Your task to perform on an android device: change notification settings in the gmail app Image 0: 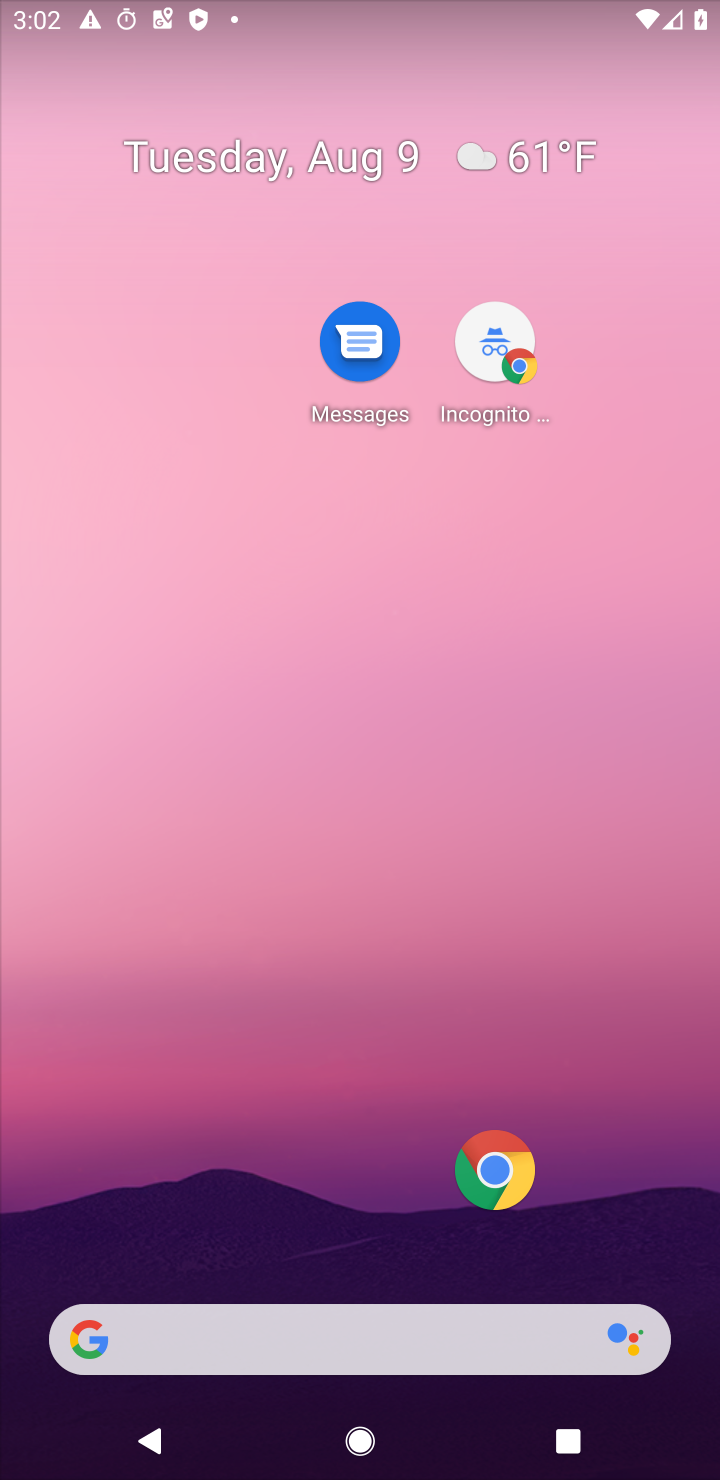
Step 0: drag from (280, 1166) to (452, 0)
Your task to perform on an android device: change notification settings in the gmail app Image 1: 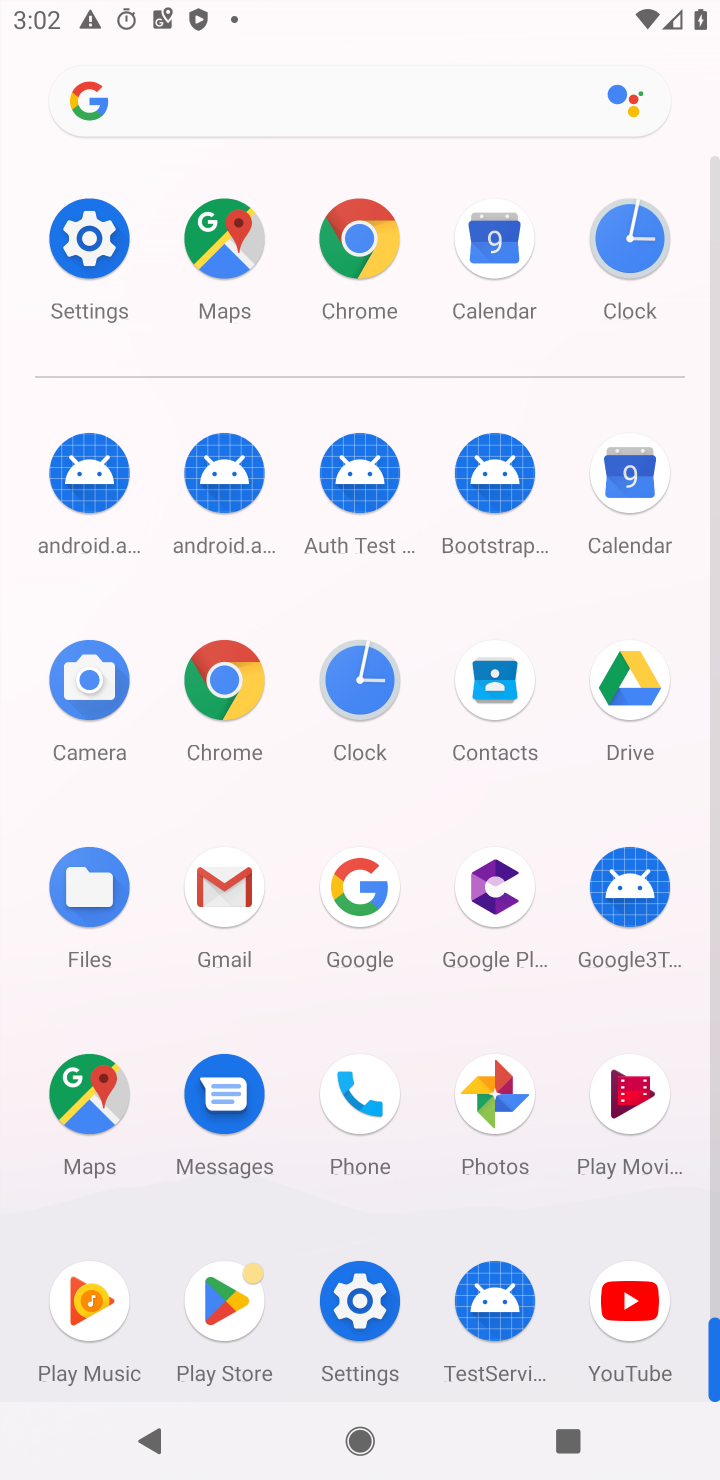
Step 1: click (230, 905)
Your task to perform on an android device: change notification settings in the gmail app Image 2: 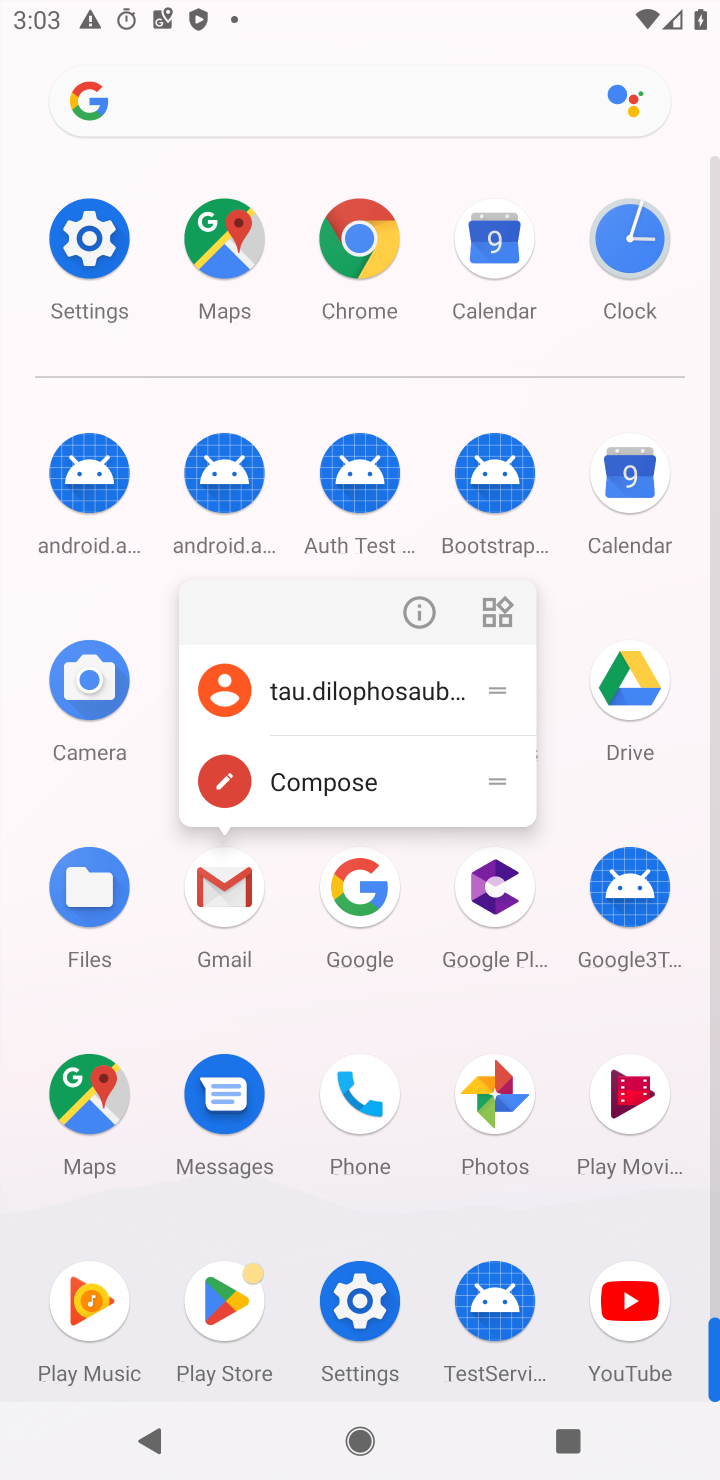
Step 2: click (202, 912)
Your task to perform on an android device: change notification settings in the gmail app Image 3: 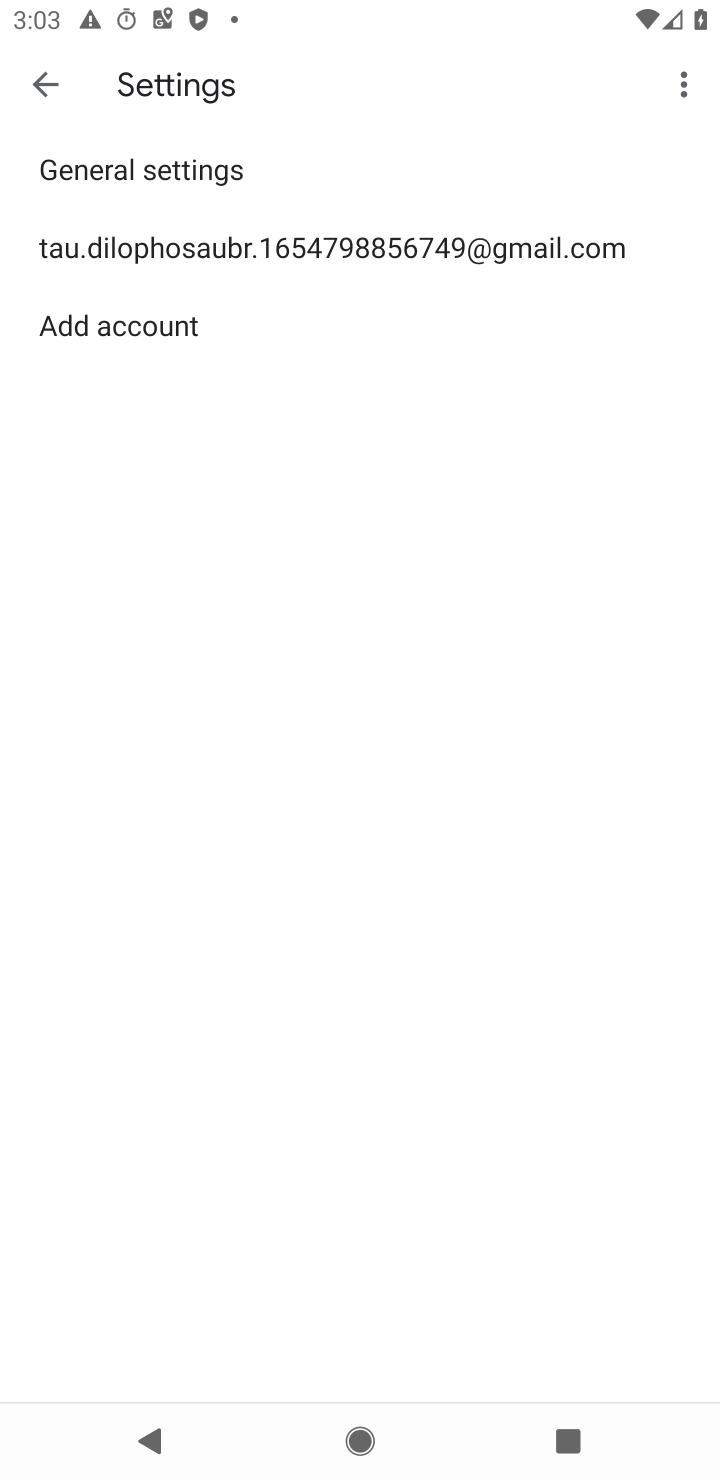
Step 3: click (200, 172)
Your task to perform on an android device: change notification settings in the gmail app Image 4: 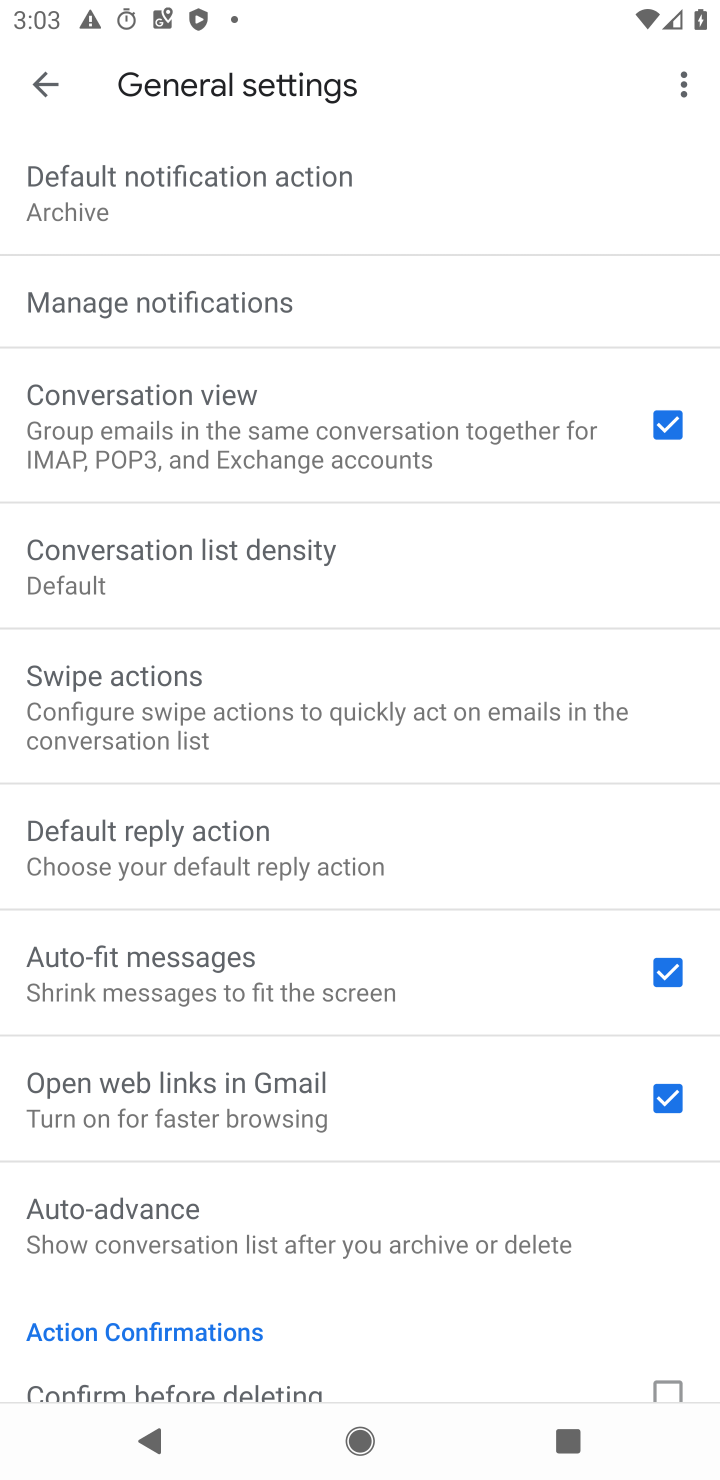
Step 4: click (196, 304)
Your task to perform on an android device: change notification settings in the gmail app Image 5: 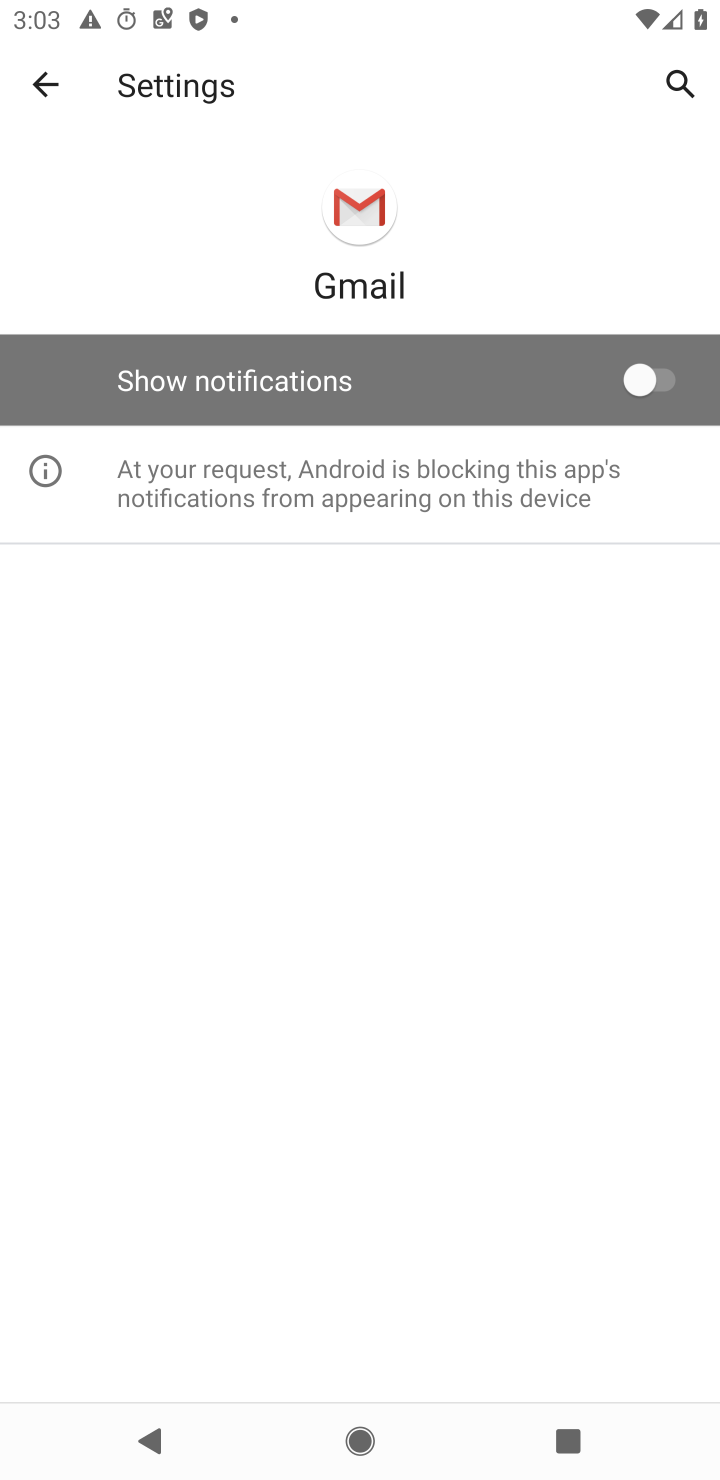
Step 5: task complete